Your task to perform on an android device: Toggle the flashlight Image 0: 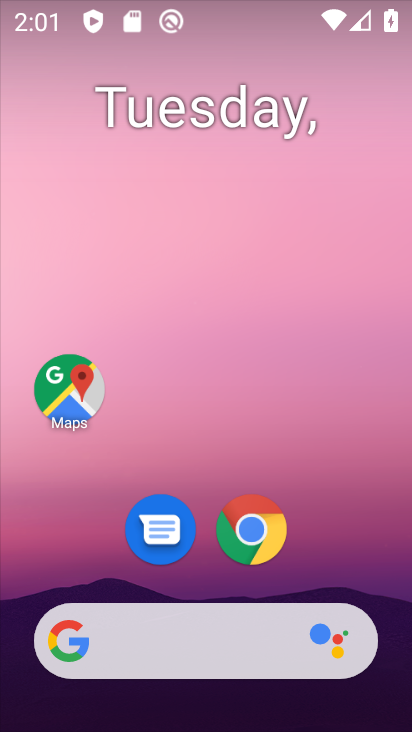
Step 0: drag from (271, 8) to (287, 431)
Your task to perform on an android device: Toggle the flashlight Image 1: 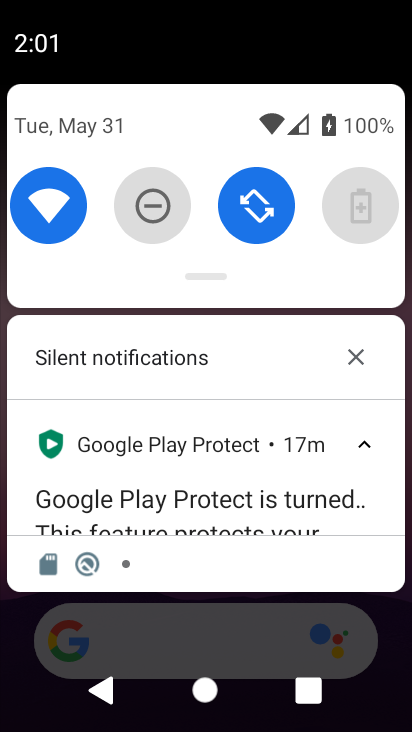
Step 1: drag from (308, 226) to (315, 613)
Your task to perform on an android device: Toggle the flashlight Image 2: 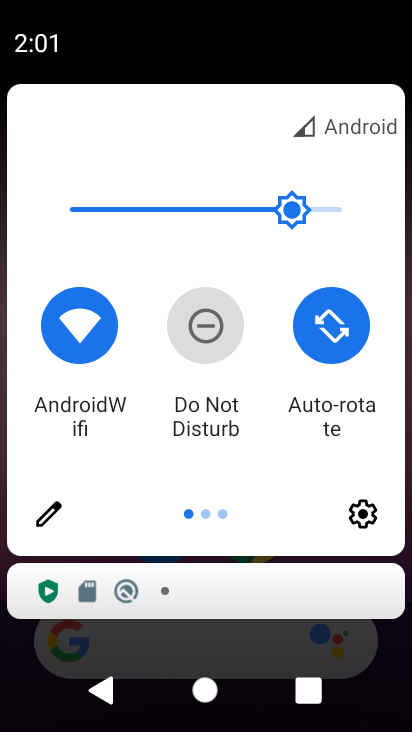
Step 2: click (57, 516)
Your task to perform on an android device: Toggle the flashlight Image 3: 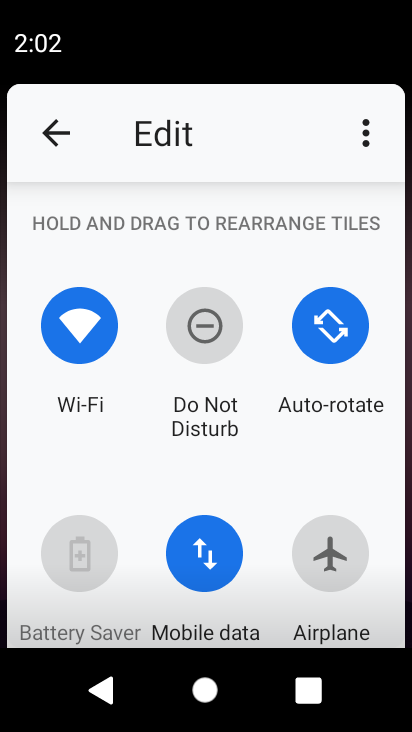
Step 3: task complete